Your task to perform on an android device: Go to Wikipedia Image 0: 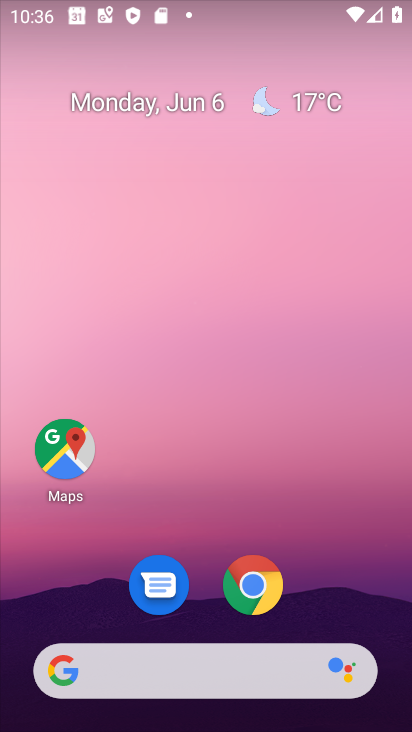
Step 0: click (243, 585)
Your task to perform on an android device: Go to Wikipedia Image 1: 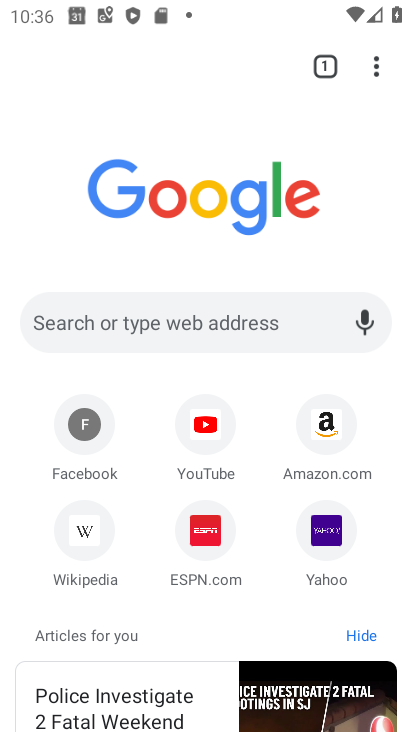
Step 1: click (89, 523)
Your task to perform on an android device: Go to Wikipedia Image 2: 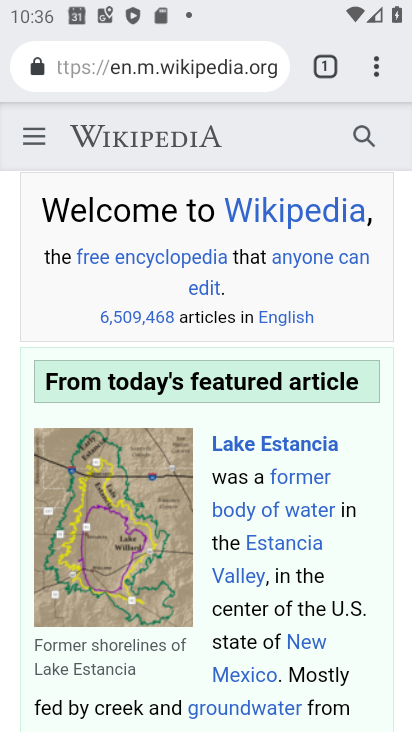
Step 2: task complete